Your task to perform on an android device: toggle improve location accuracy Image 0: 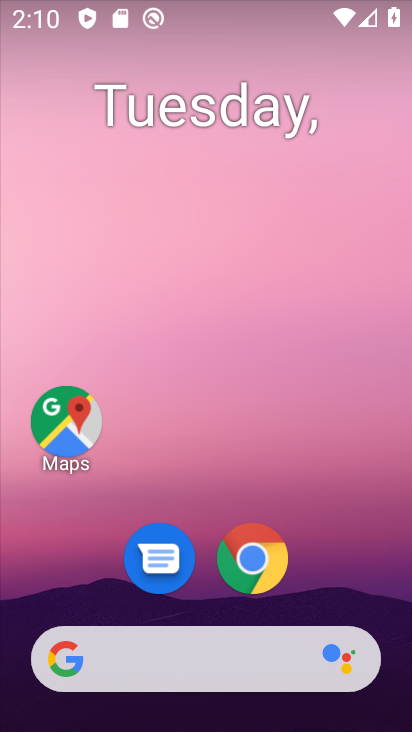
Step 0: drag from (87, 551) to (215, 189)
Your task to perform on an android device: toggle improve location accuracy Image 1: 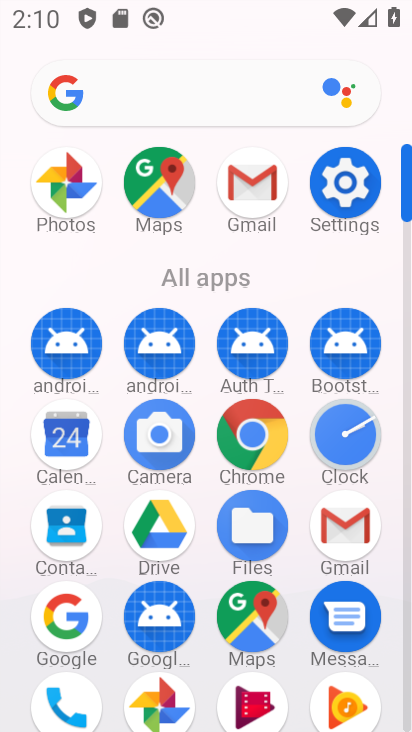
Step 1: drag from (141, 653) to (240, 400)
Your task to perform on an android device: toggle improve location accuracy Image 2: 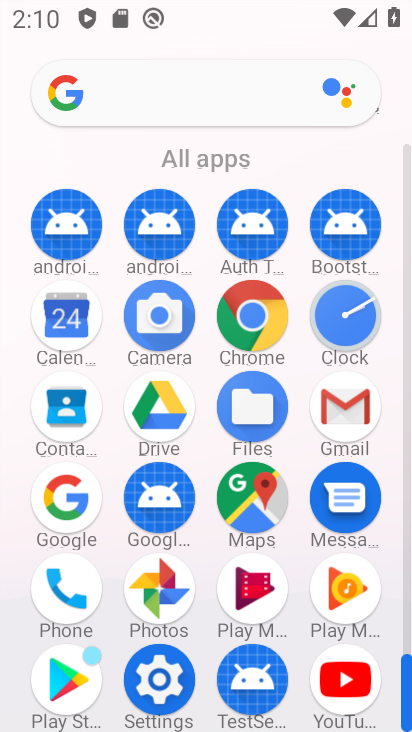
Step 2: click (157, 690)
Your task to perform on an android device: toggle improve location accuracy Image 3: 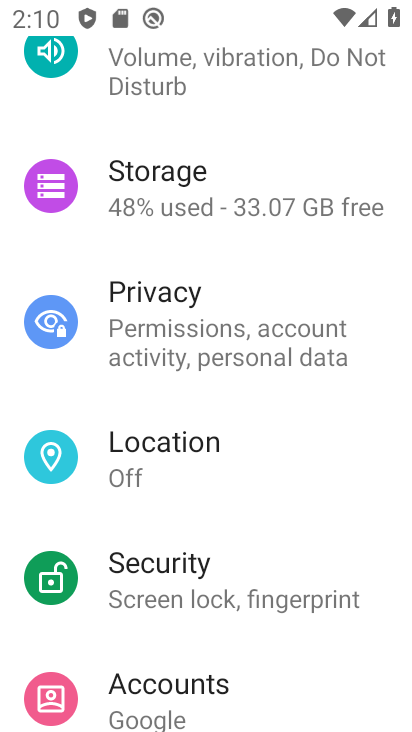
Step 3: click (230, 455)
Your task to perform on an android device: toggle improve location accuracy Image 4: 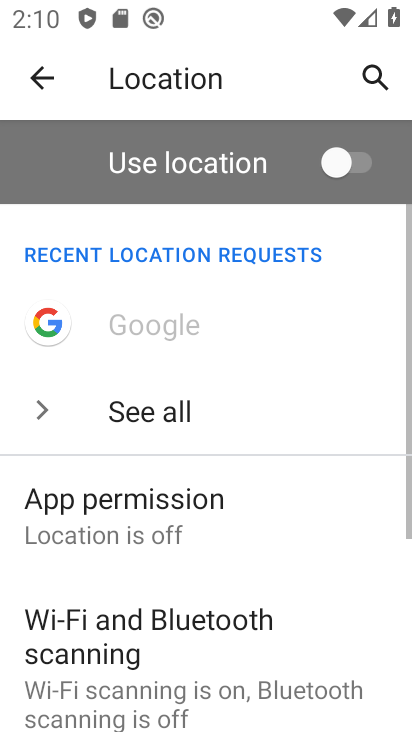
Step 4: drag from (222, 613) to (346, 343)
Your task to perform on an android device: toggle improve location accuracy Image 5: 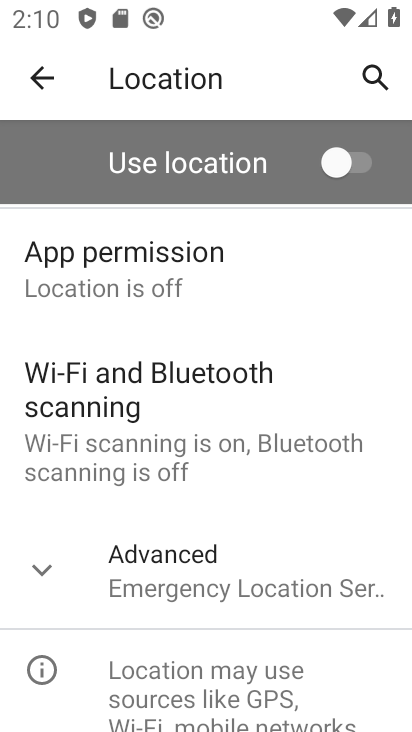
Step 5: click (232, 590)
Your task to perform on an android device: toggle improve location accuracy Image 6: 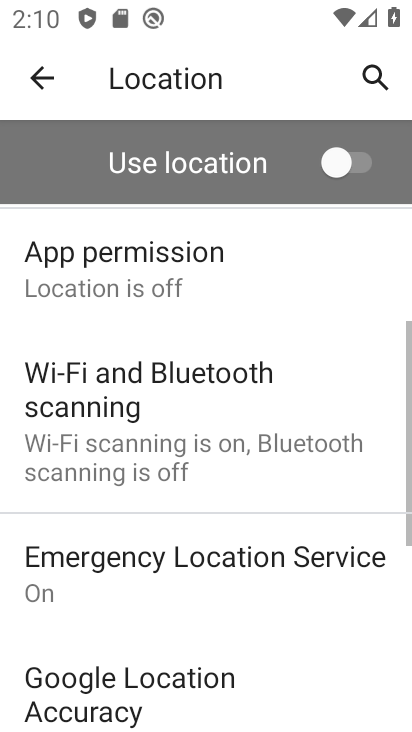
Step 6: drag from (256, 643) to (399, 280)
Your task to perform on an android device: toggle improve location accuracy Image 7: 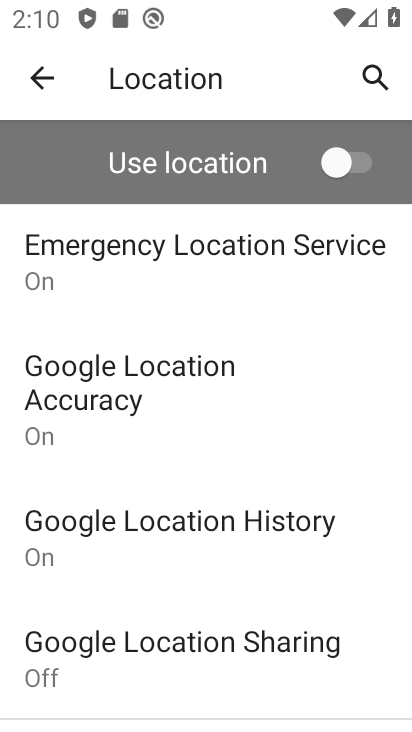
Step 7: click (243, 391)
Your task to perform on an android device: toggle improve location accuracy Image 8: 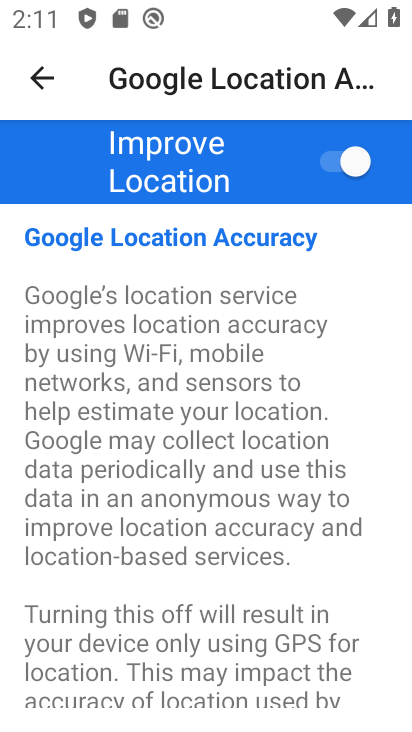
Step 8: click (324, 167)
Your task to perform on an android device: toggle improve location accuracy Image 9: 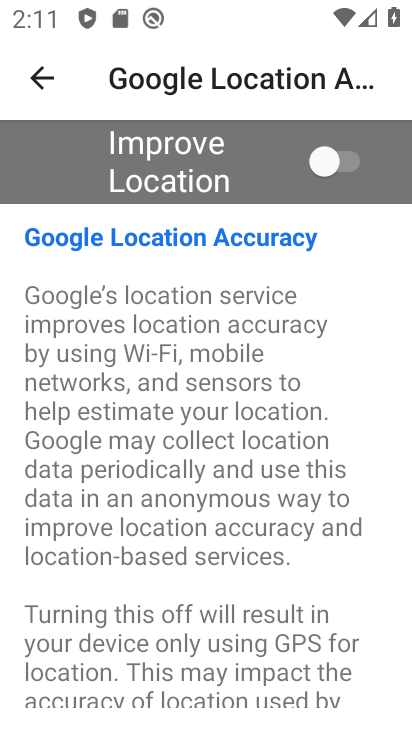
Step 9: task complete